Your task to perform on an android device: see tabs open on other devices in the chrome app Image 0: 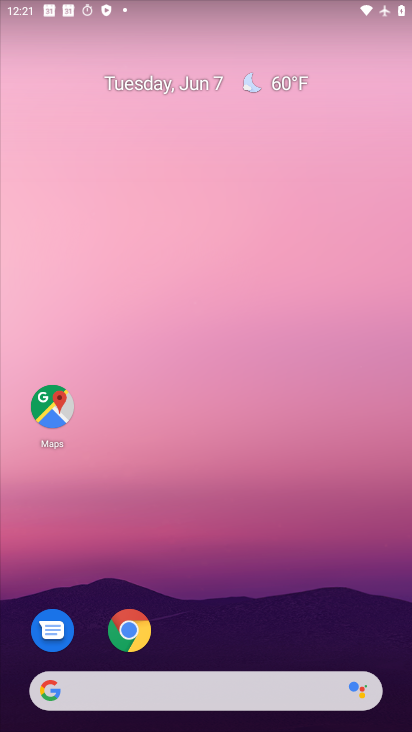
Step 0: drag from (325, 610) to (267, 135)
Your task to perform on an android device: see tabs open on other devices in the chrome app Image 1: 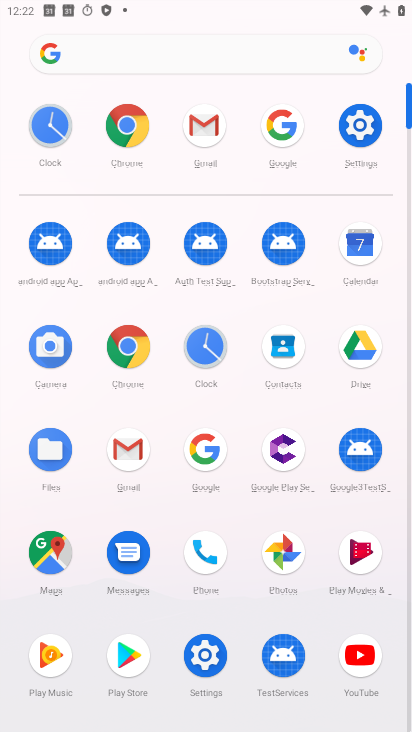
Step 1: click (118, 341)
Your task to perform on an android device: see tabs open on other devices in the chrome app Image 2: 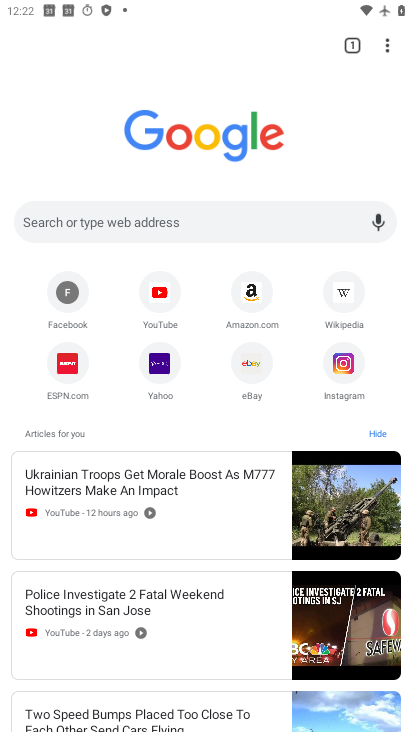
Step 2: task complete